Your task to perform on an android device: Go to accessibility settings Image 0: 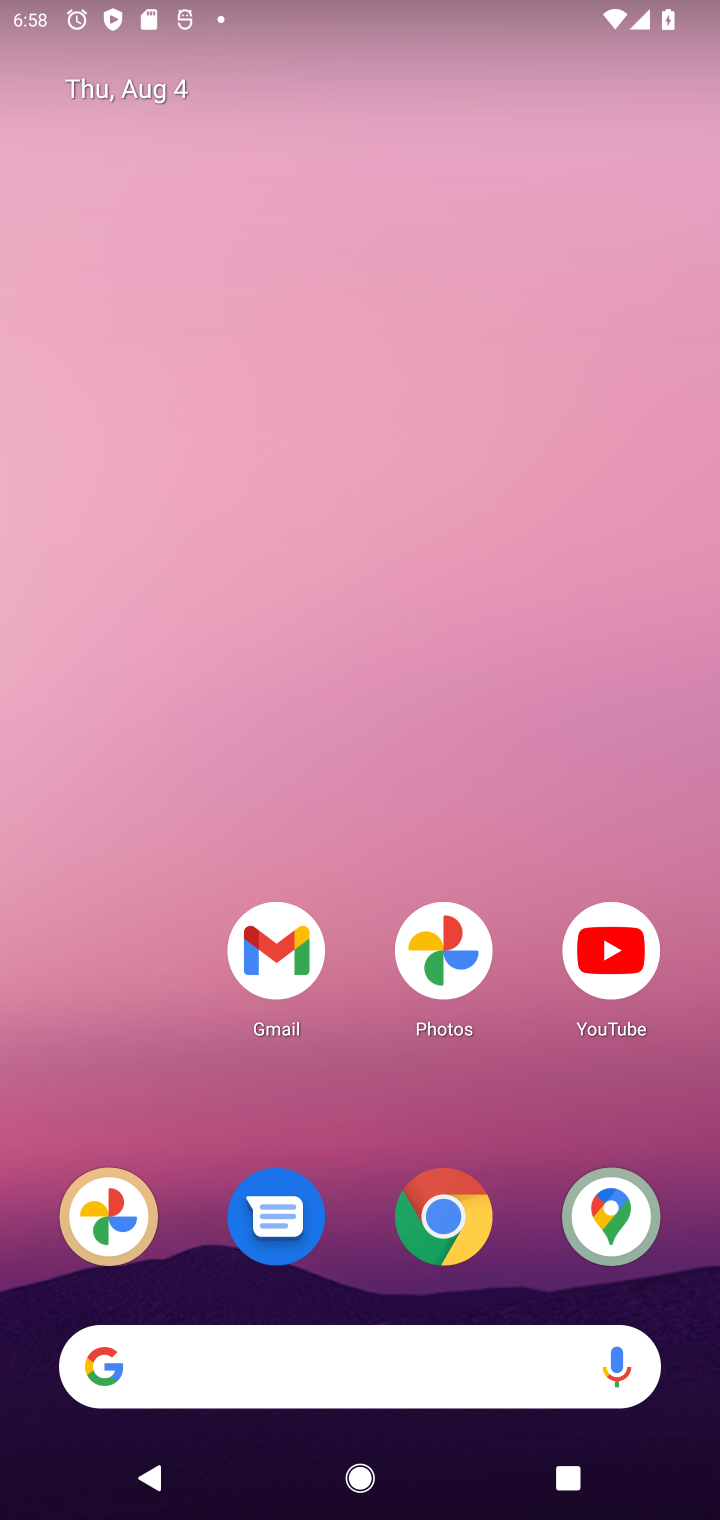
Step 0: drag from (558, 1098) to (457, 87)
Your task to perform on an android device: Go to accessibility settings Image 1: 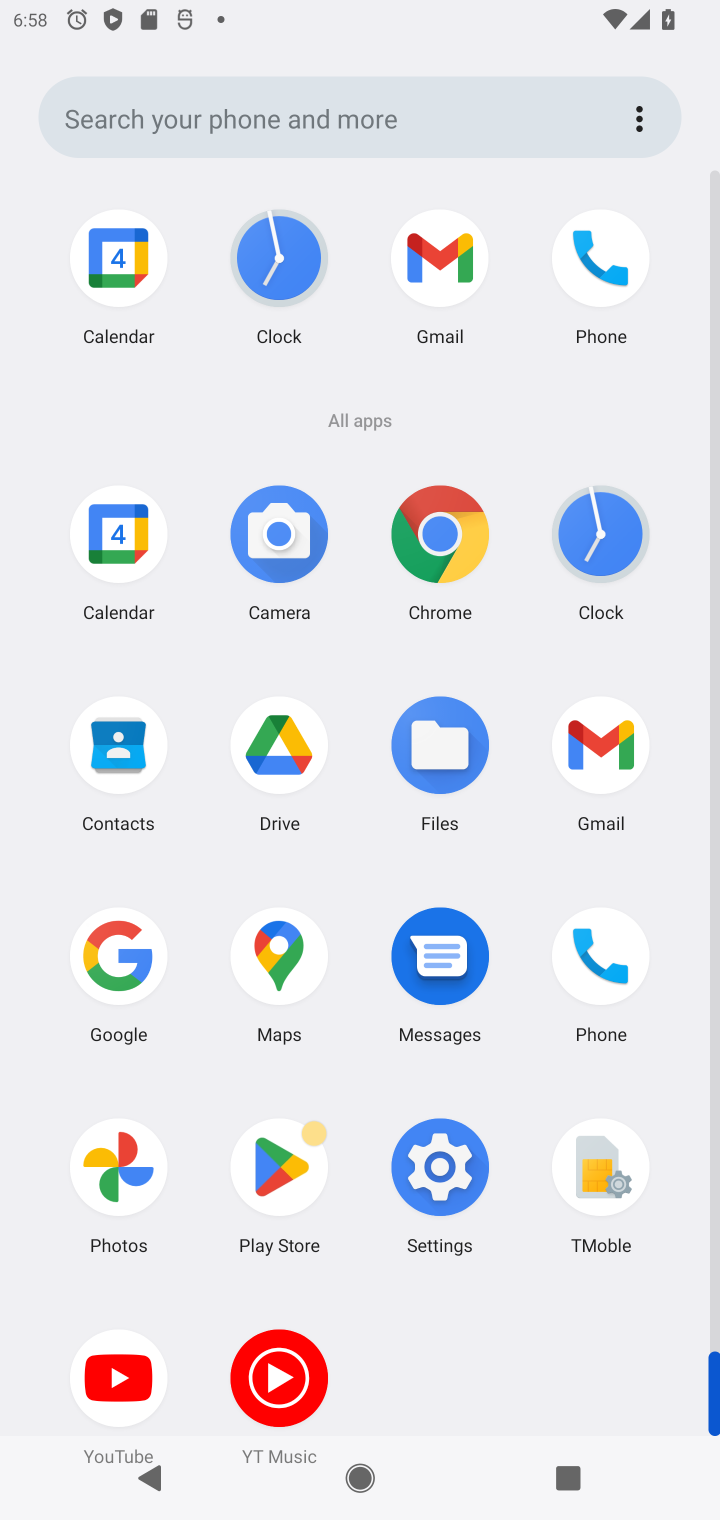
Step 1: click (454, 1198)
Your task to perform on an android device: Go to accessibility settings Image 2: 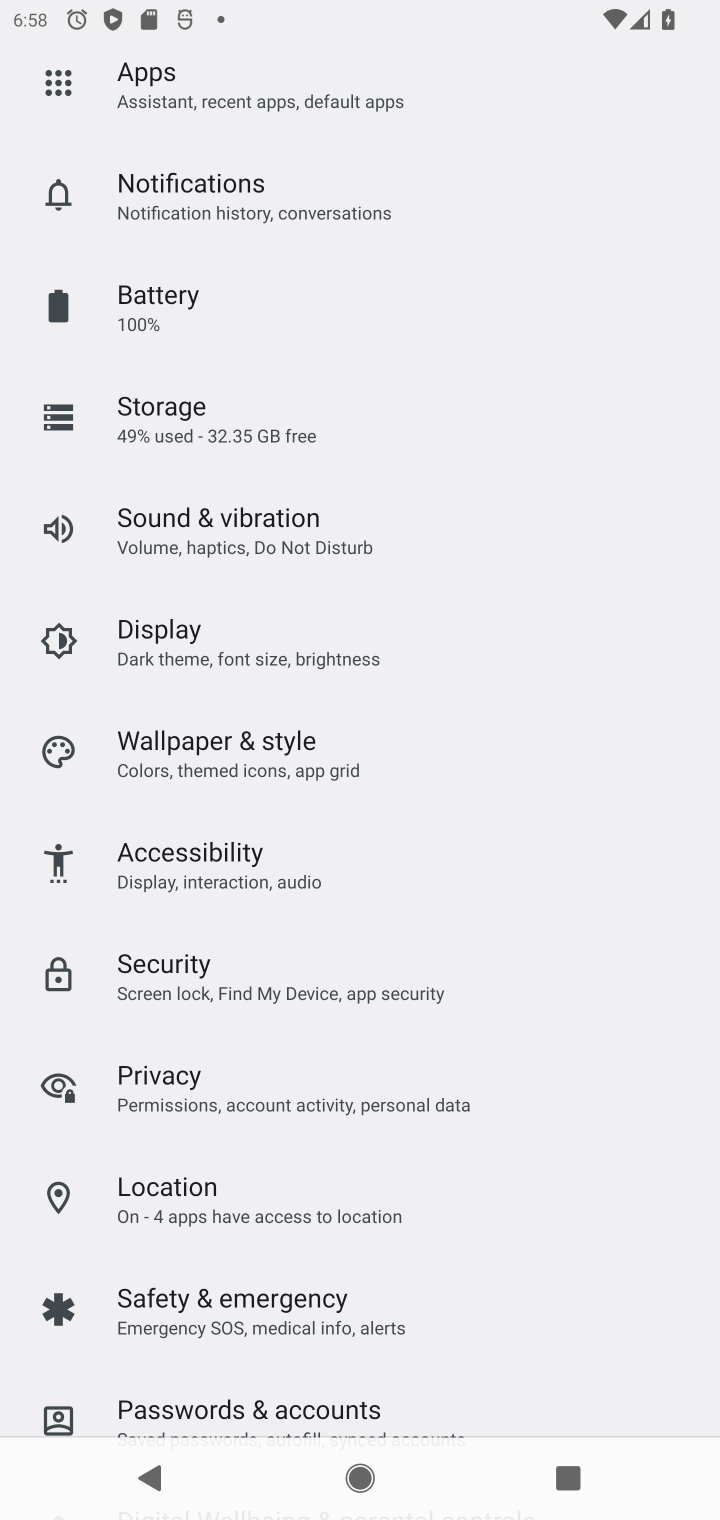
Step 2: click (255, 861)
Your task to perform on an android device: Go to accessibility settings Image 3: 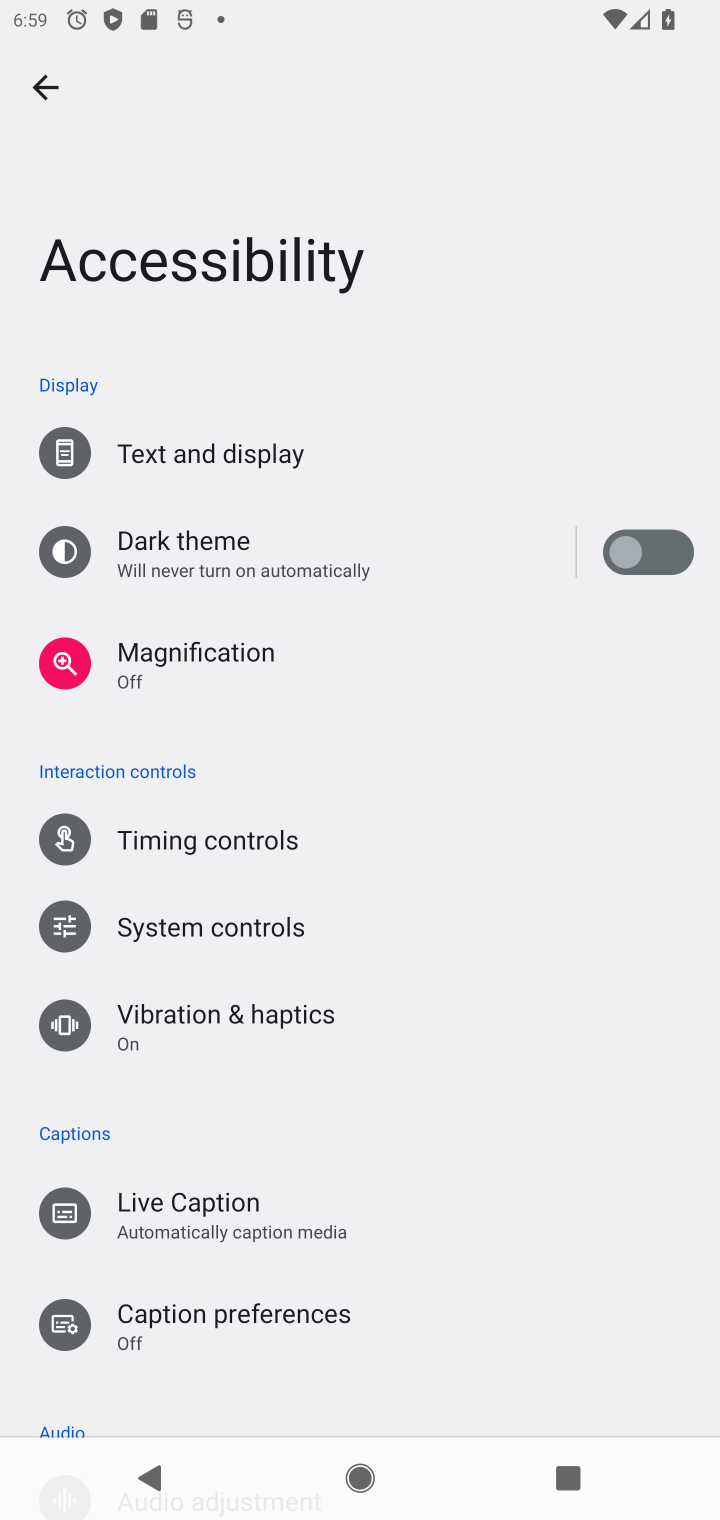
Step 3: task complete